Your task to perform on an android device: turn on priority inbox in the gmail app Image 0: 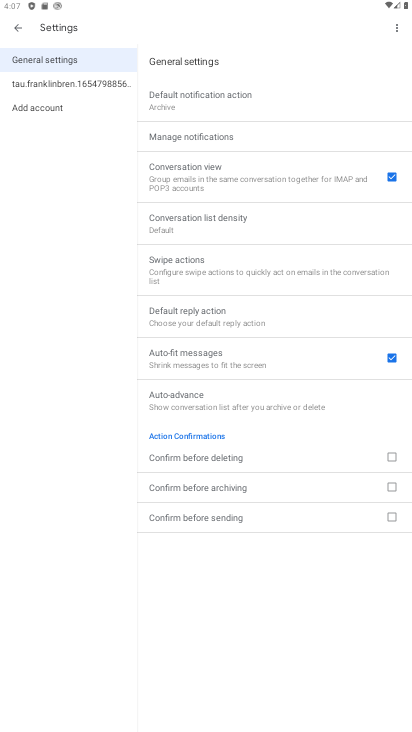
Step 0: click (43, 87)
Your task to perform on an android device: turn on priority inbox in the gmail app Image 1: 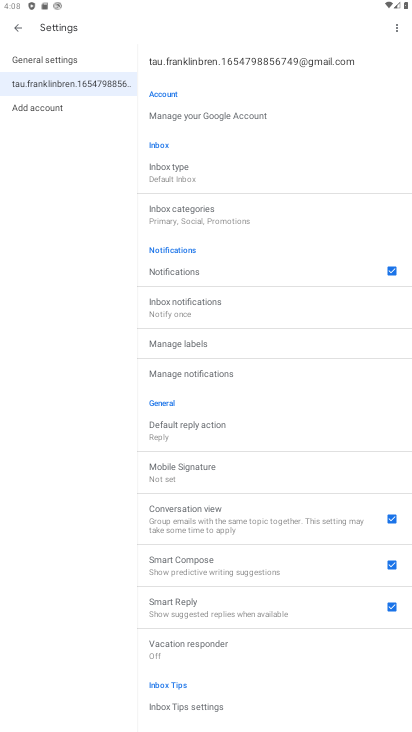
Step 1: click (160, 169)
Your task to perform on an android device: turn on priority inbox in the gmail app Image 2: 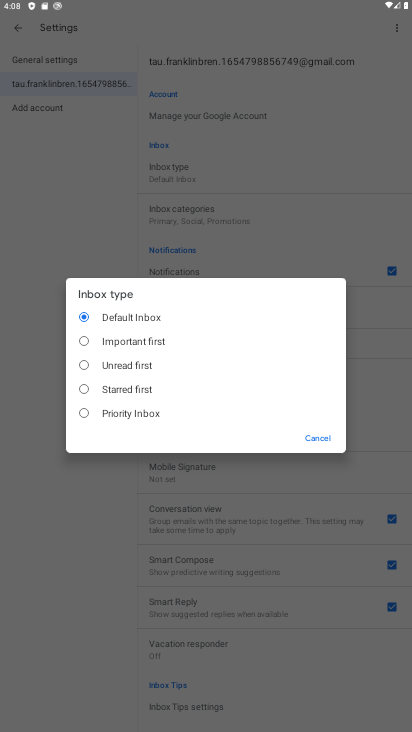
Step 2: click (150, 421)
Your task to perform on an android device: turn on priority inbox in the gmail app Image 3: 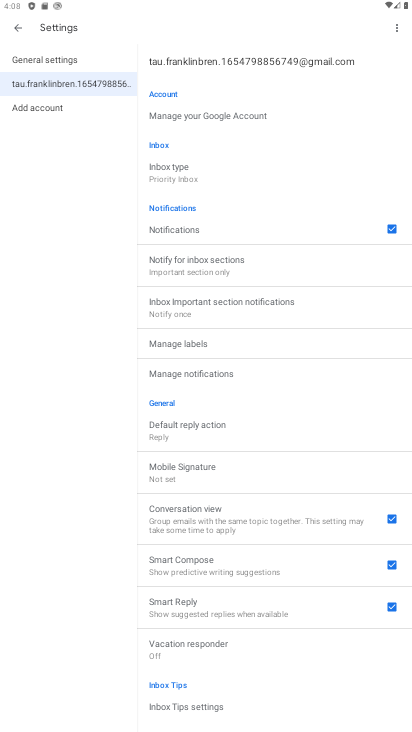
Step 3: task complete